Your task to perform on an android device: find which apps use the phone's location Image 0: 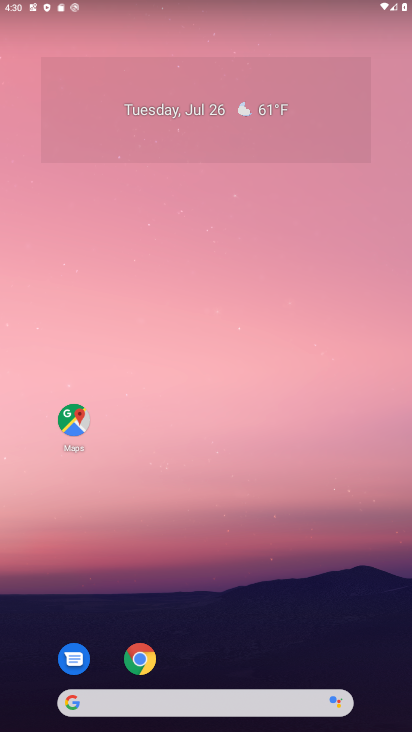
Step 0: drag from (186, 584) to (217, 310)
Your task to perform on an android device: find which apps use the phone's location Image 1: 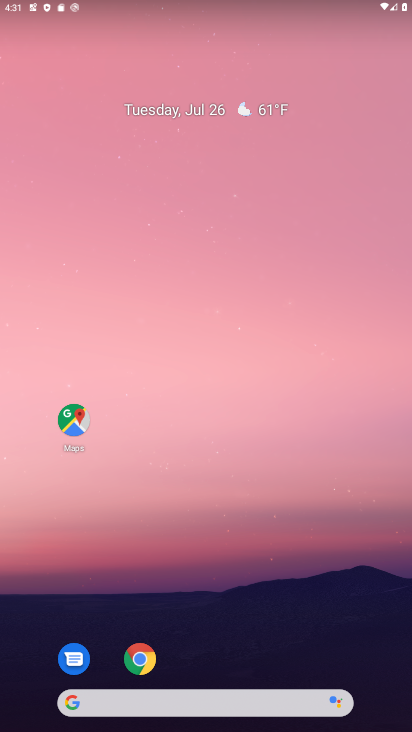
Step 1: drag from (175, 429) to (293, 9)
Your task to perform on an android device: find which apps use the phone's location Image 2: 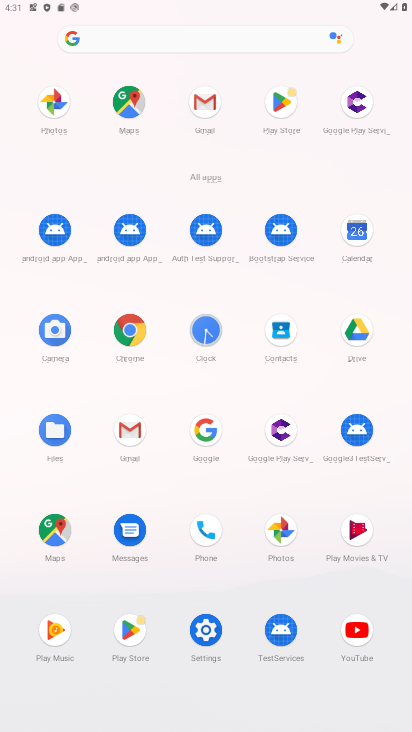
Step 2: click (210, 635)
Your task to perform on an android device: find which apps use the phone's location Image 3: 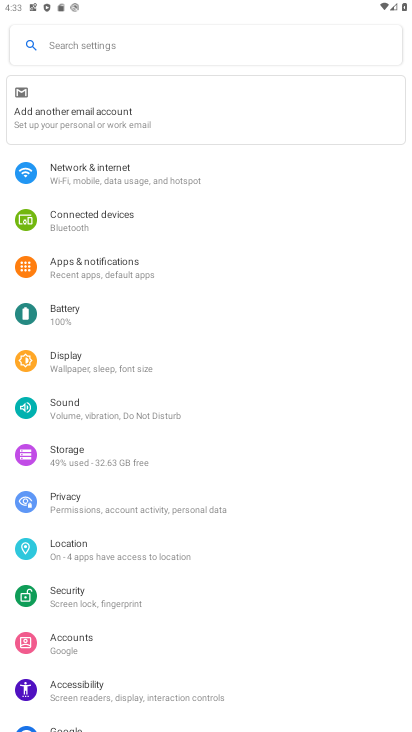
Step 3: click (84, 547)
Your task to perform on an android device: find which apps use the phone's location Image 4: 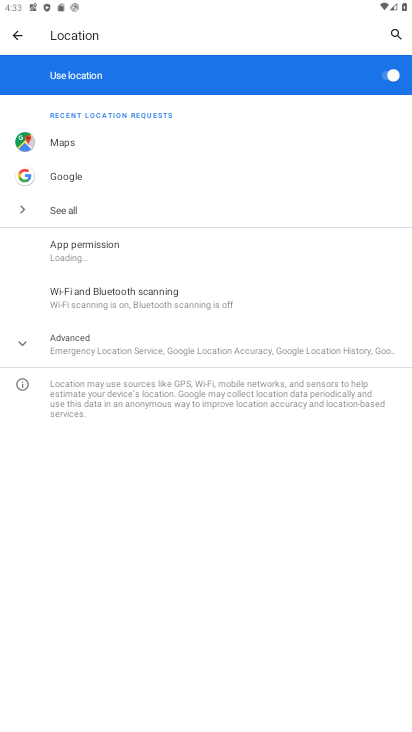
Step 4: task complete